Your task to perform on an android device: turn off location Image 0: 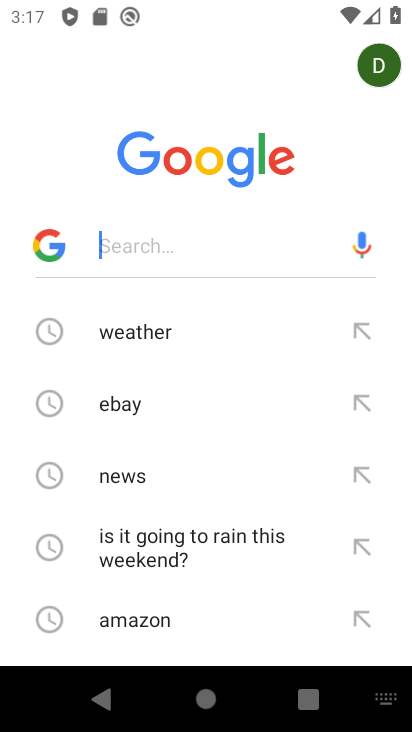
Step 0: press back button
Your task to perform on an android device: turn off location Image 1: 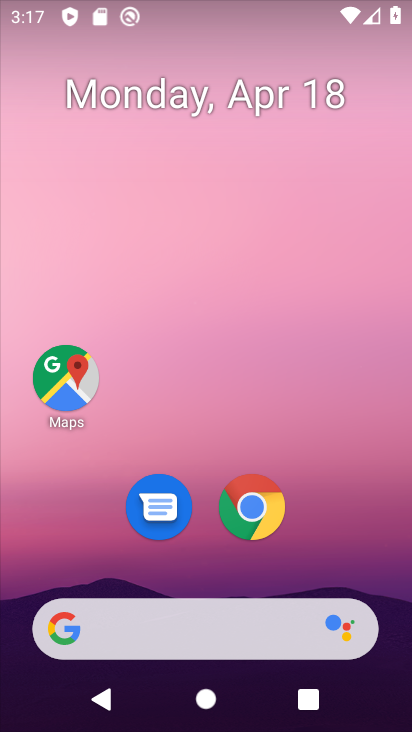
Step 1: drag from (320, 160) to (320, 62)
Your task to perform on an android device: turn off location Image 2: 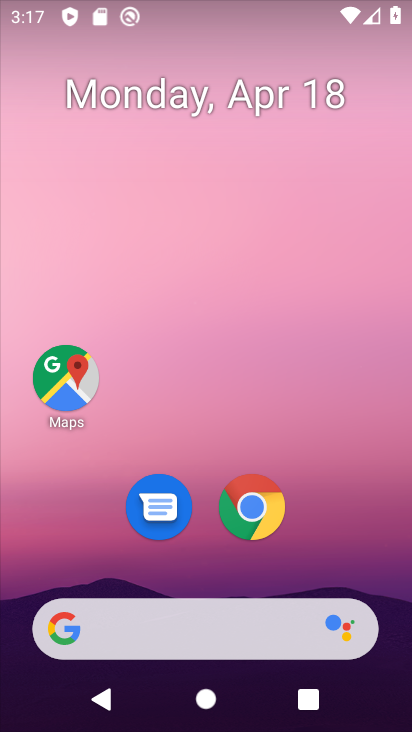
Step 2: drag from (264, 567) to (253, 87)
Your task to perform on an android device: turn off location Image 3: 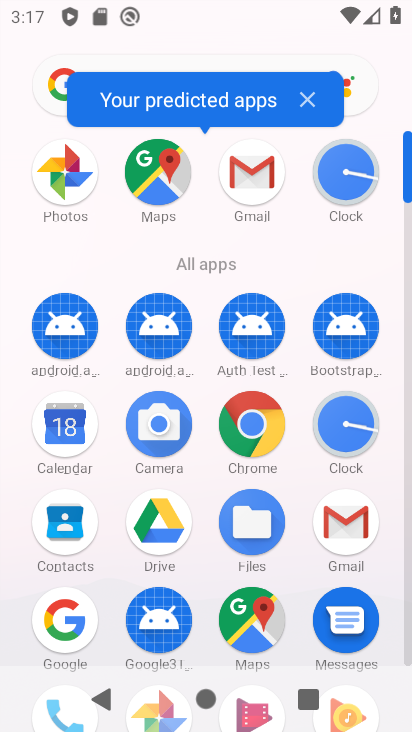
Step 3: drag from (201, 584) to (212, 265)
Your task to perform on an android device: turn off location Image 4: 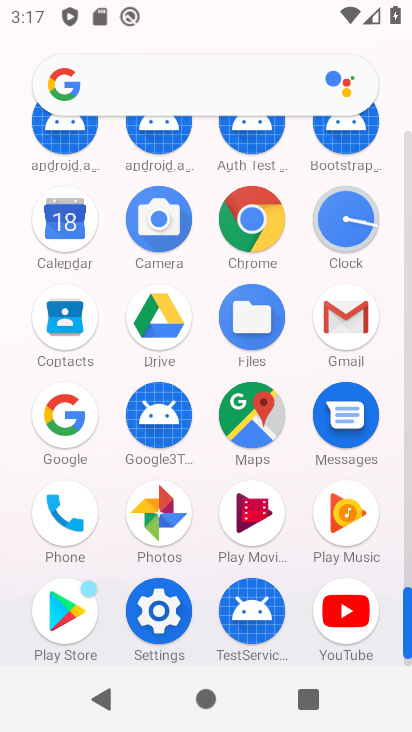
Step 4: click (166, 611)
Your task to perform on an android device: turn off location Image 5: 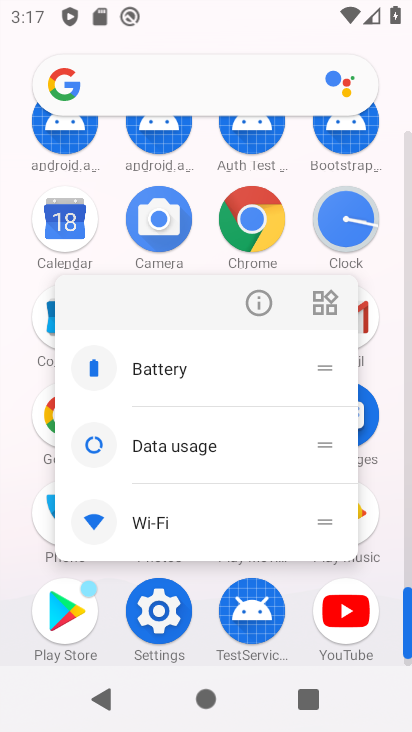
Step 5: click (161, 597)
Your task to perform on an android device: turn off location Image 6: 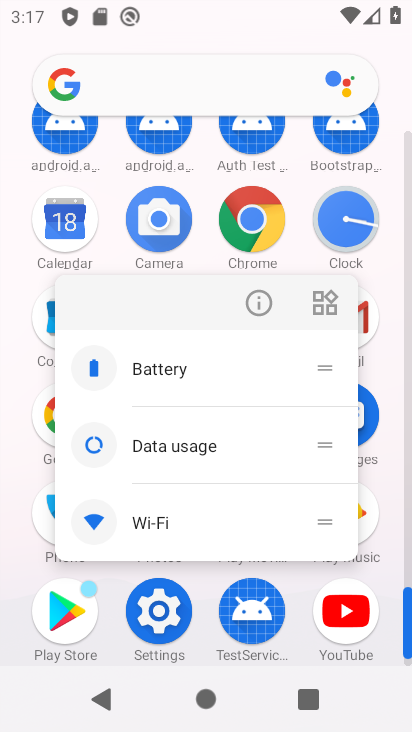
Step 6: click (157, 593)
Your task to perform on an android device: turn off location Image 7: 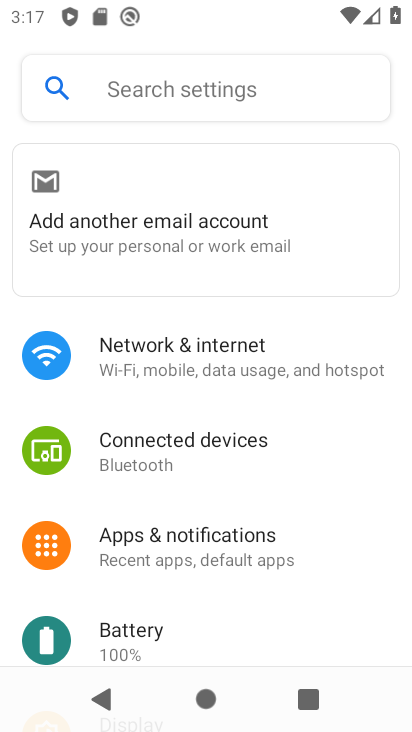
Step 7: drag from (194, 571) to (236, 197)
Your task to perform on an android device: turn off location Image 8: 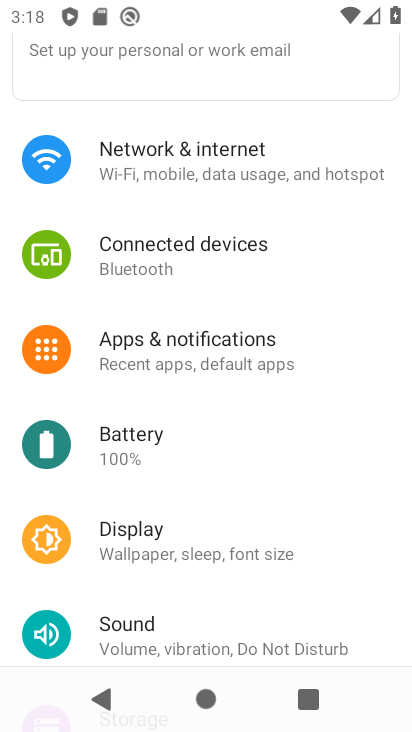
Step 8: drag from (173, 525) to (206, 138)
Your task to perform on an android device: turn off location Image 9: 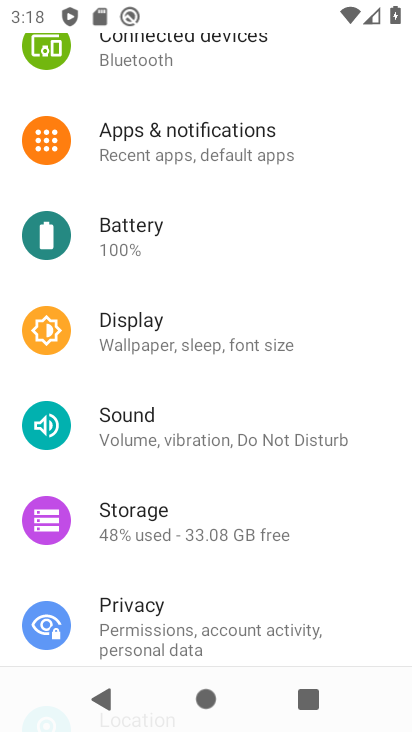
Step 9: drag from (164, 610) to (197, 243)
Your task to perform on an android device: turn off location Image 10: 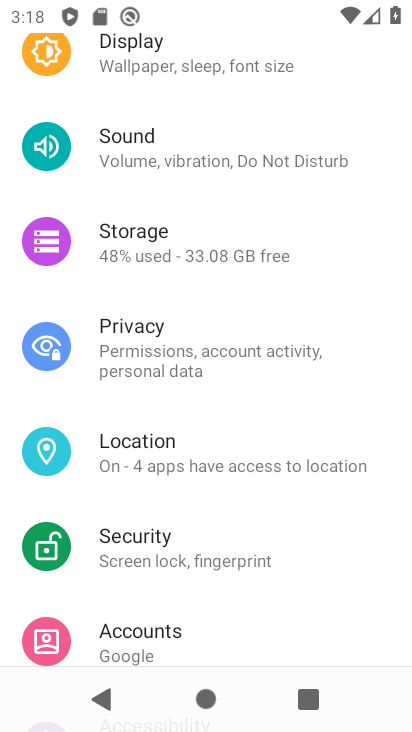
Step 10: click (194, 446)
Your task to perform on an android device: turn off location Image 11: 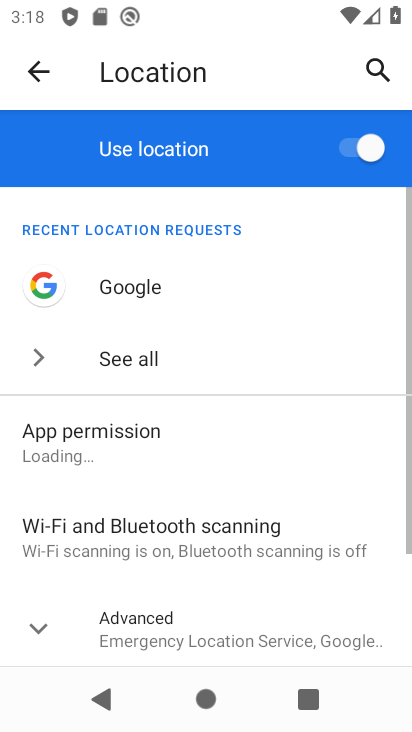
Step 11: click (360, 138)
Your task to perform on an android device: turn off location Image 12: 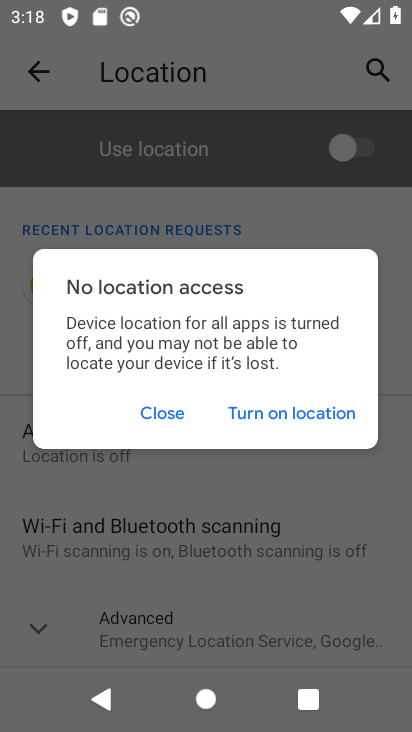
Step 12: task complete